Your task to perform on an android device: change the clock display to show seconds Image 0: 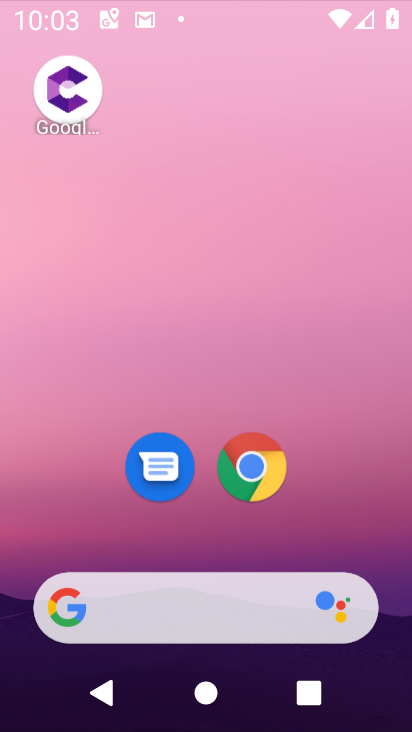
Step 0: click (280, 53)
Your task to perform on an android device: change the clock display to show seconds Image 1: 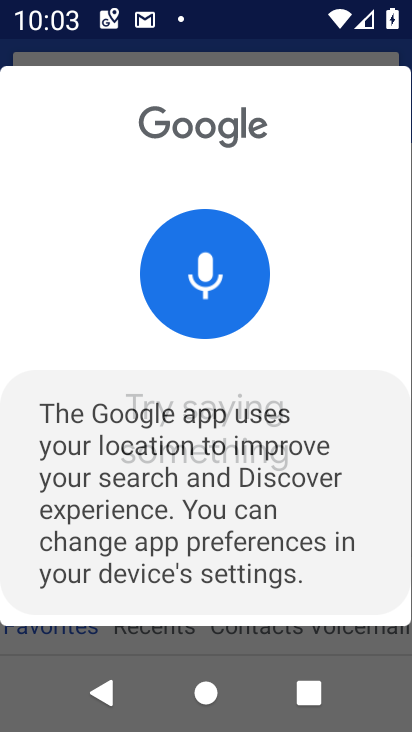
Step 1: press back button
Your task to perform on an android device: change the clock display to show seconds Image 2: 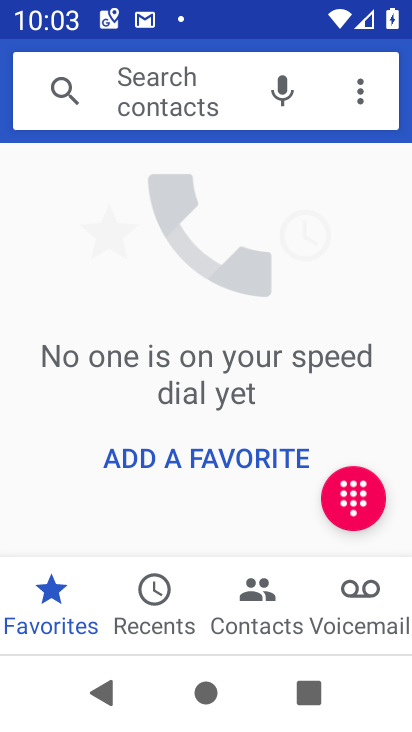
Step 2: press back button
Your task to perform on an android device: change the clock display to show seconds Image 3: 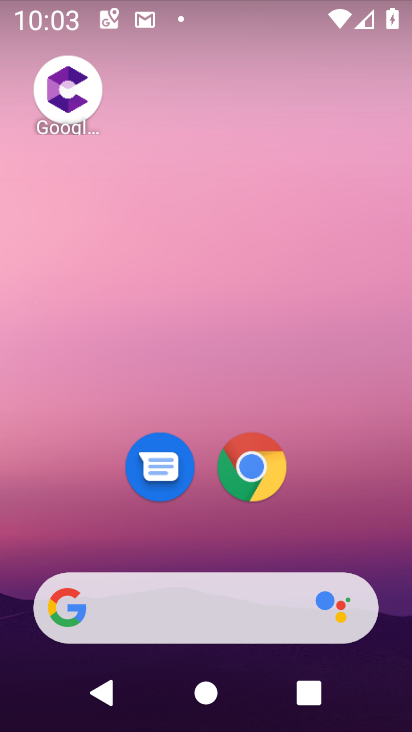
Step 3: drag from (183, 382) to (266, 0)
Your task to perform on an android device: change the clock display to show seconds Image 4: 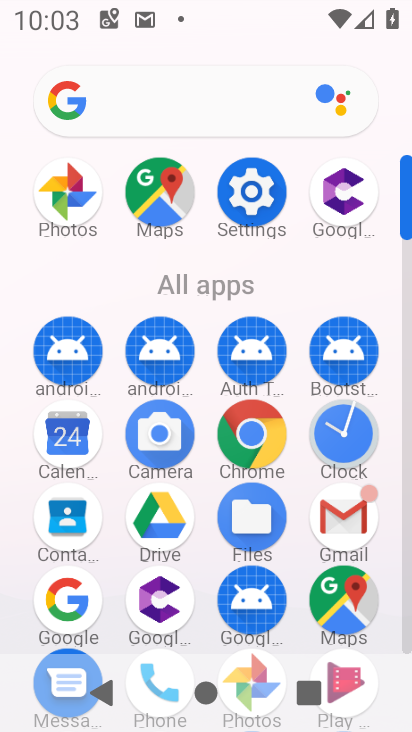
Step 4: click (358, 409)
Your task to perform on an android device: change the clock display to show seconds Image 5: 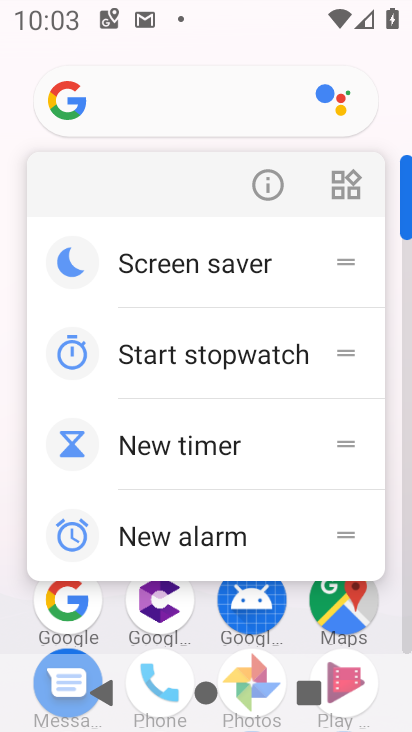
Step 5: press back button
Your task to perform on an android device: change the clock display to show seconds Image 6: 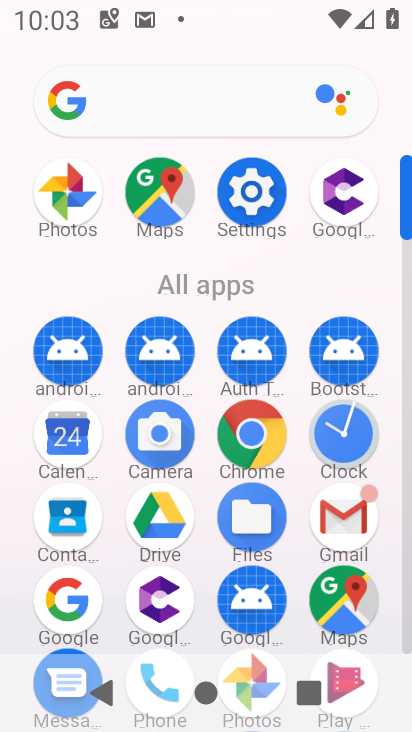
Step 6: click (336, 430)
Your task to perform on an android device: change the clock display to show seconds Image 7: 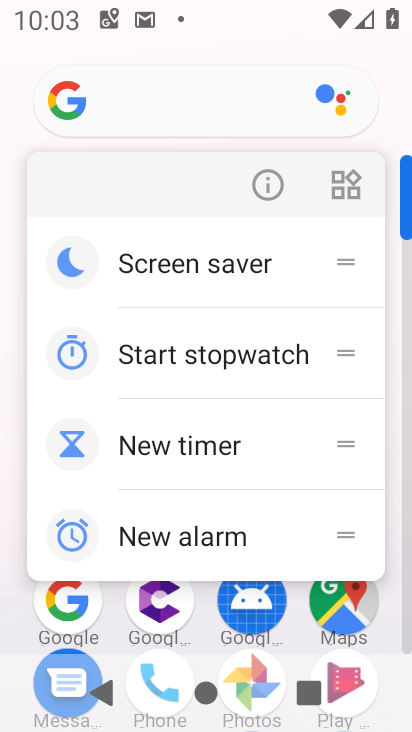
Step 7: press back button
Your task to perform on an android device: change the clock display to show seconds Image 8: 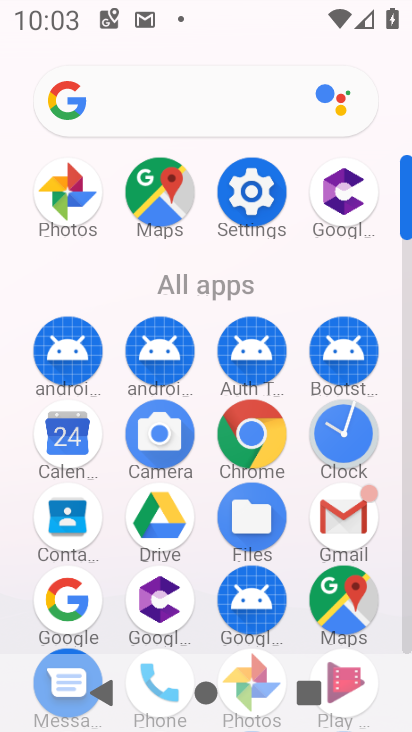
Step 8: click (340, 440)
Your task to perform on an android device: change the clock display to show seconds Image 9: 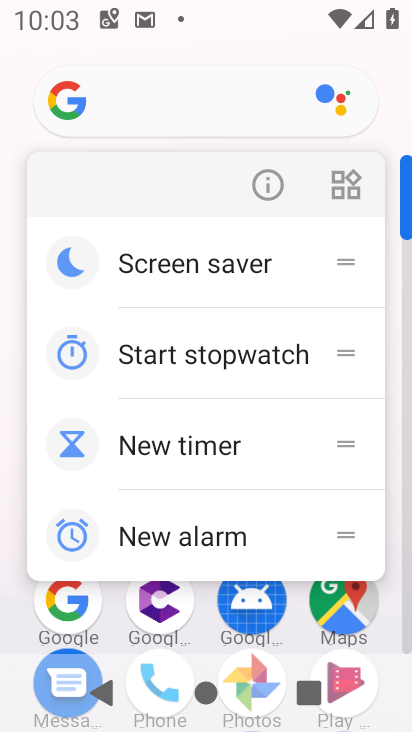
Step 9: press back button
Your task to perform on an android device: change the clock display to show seconds Image 10: 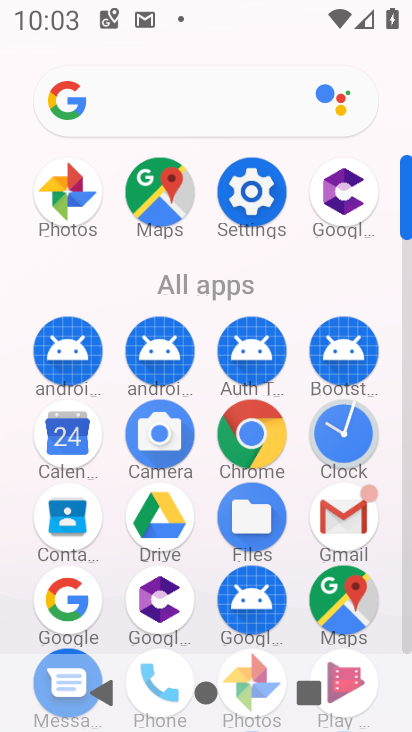
Step 10: click (350, 437)
Your task to perform on an android device: change the clock display to show seconds Image 11: 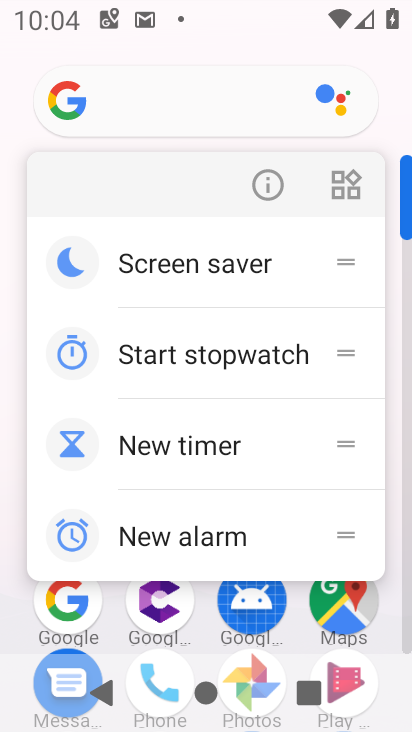
Step 11: press back button
Your task to perform on an android device: change the clock display to show seconds Image 12: 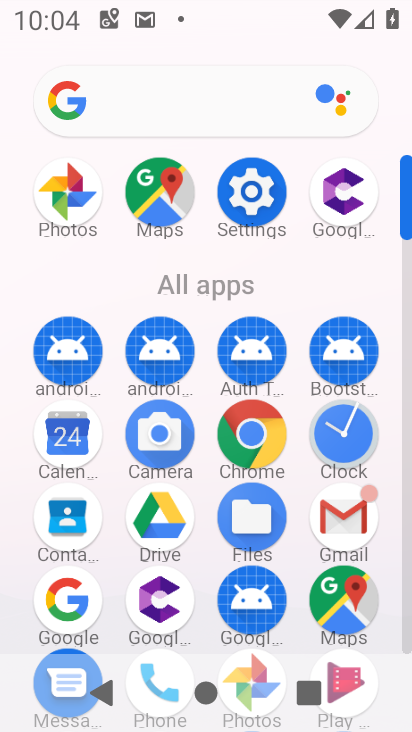
Step 12: click (340, 459)
Your task to perform on an android device: change the clock display to show seconds Image 13: 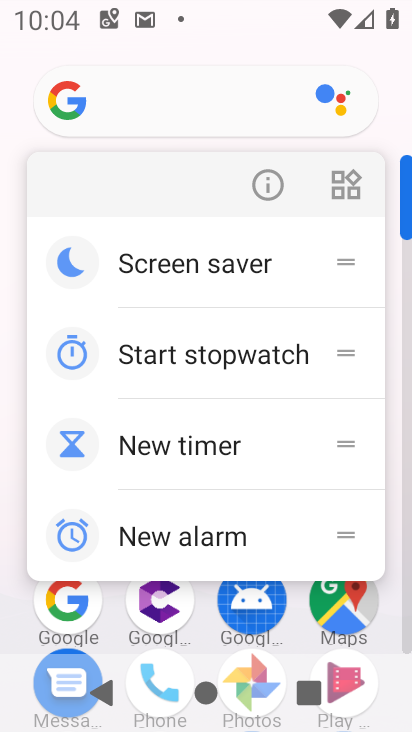
Step 13: press back button
Your task to perform on an android device: change the clock display to show seconds Image 14: 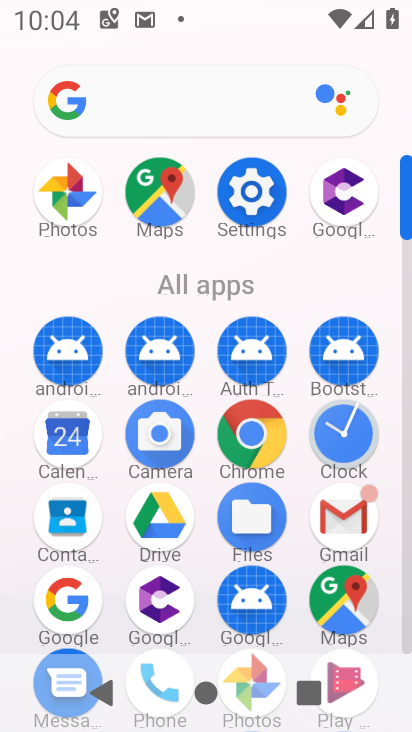
Step 14: click (360, 431)
Your task to perform on an android device: change the clock display to show seconds Image 15: 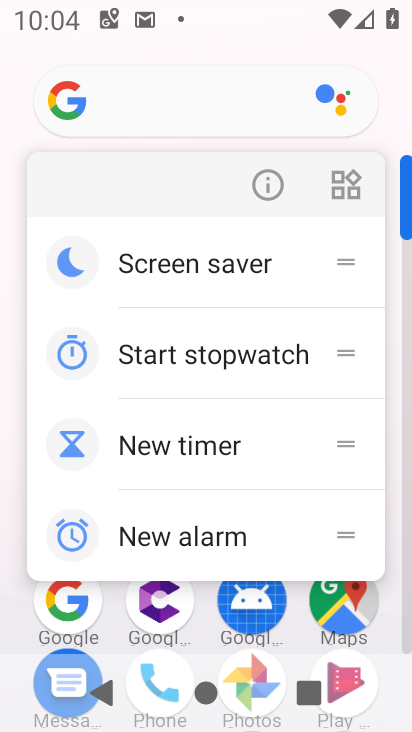
Step 15: press back button
Your task to perform on an android device: change the clock display to show seconds Image 16: 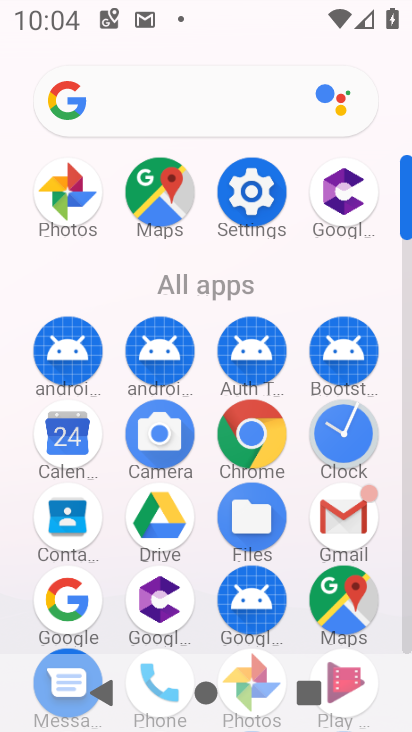
Step 16: click (337, 420)
Your task to perform on an android device: change the clock display to show seconds Image 17: 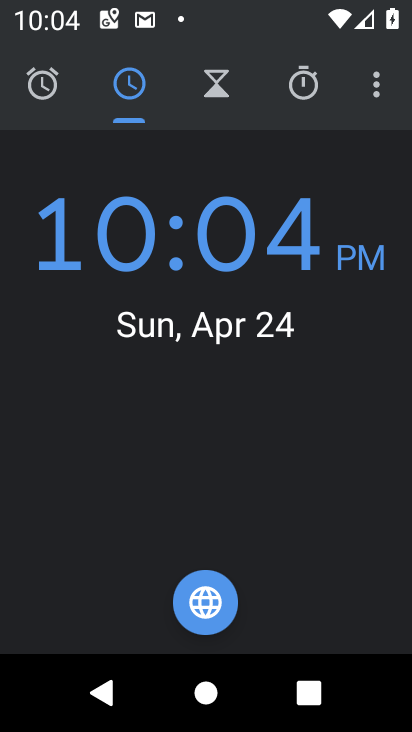
Step 17: click (385, 90)
Your task to perform on an android device: change the clock display to show seconds Image 18: 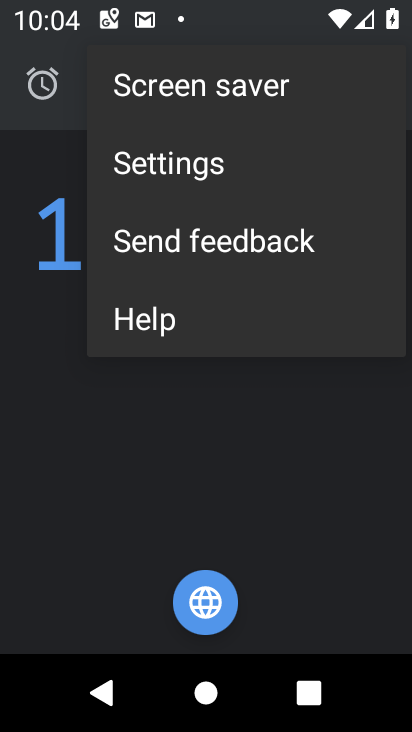
Step 18: click (351, 149)
Your task to perform on an android device: change the clock display to show seconds Image 19: 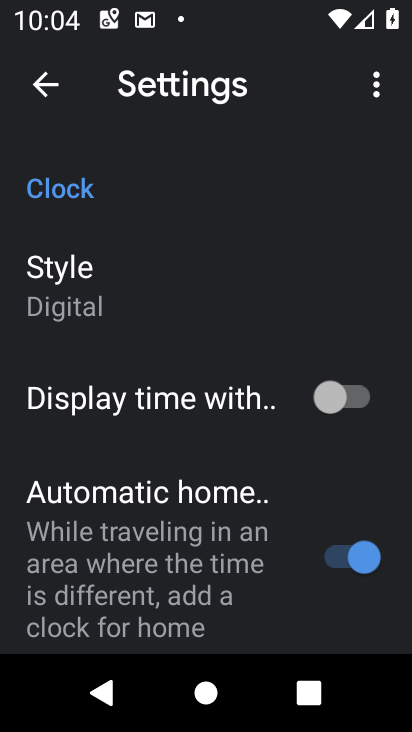
Step 19: click (371, 390)
Your task to perform on an android device: change the clock display to show seconds Image 20: 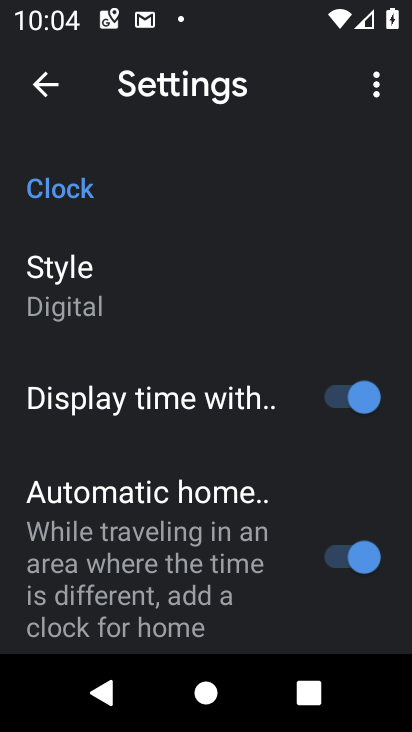
Step 20: task complete